Your task to perform on an android device: toggle show notifications on the lock screen Image 0: 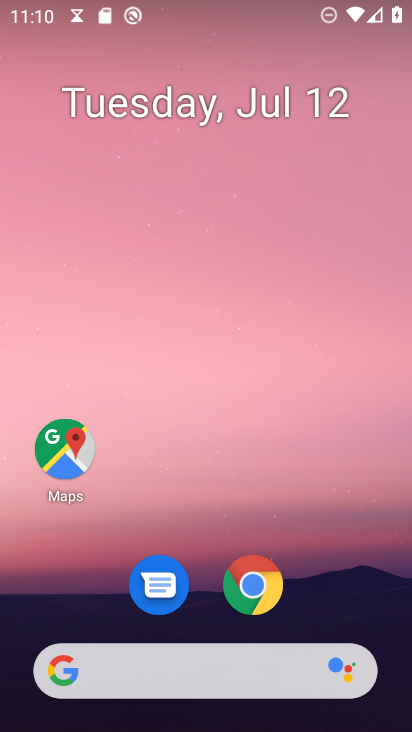
Step 0: drag from (206, 678) to (322, 224)
Your task to perform on an android device: toggle show notifications on the lock screen Image 1: 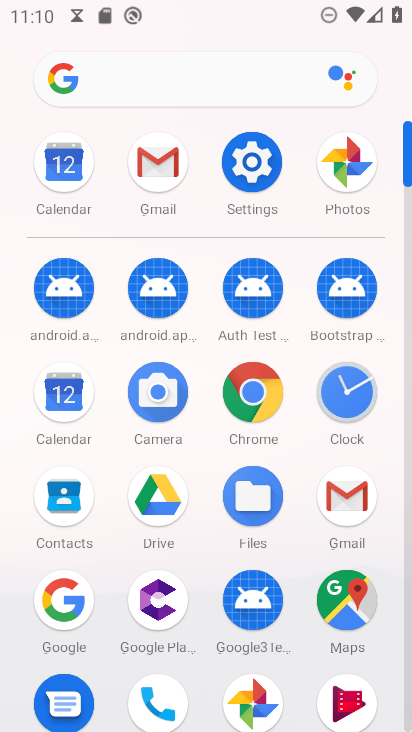
Step 1: click (255, 173)
Your task to perform on an android device: toggle show notifications on the lock screen Image 2: 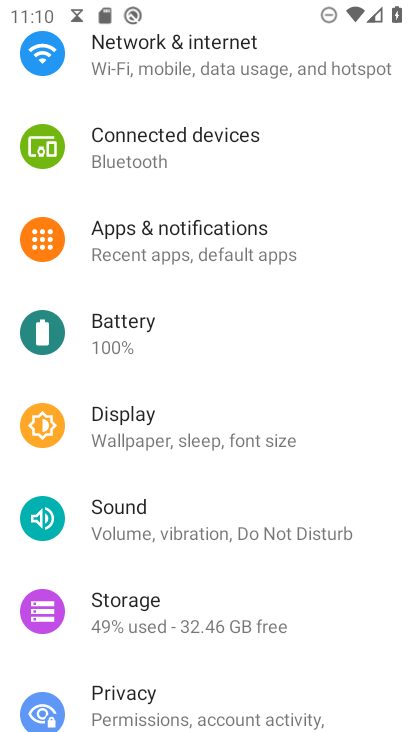
Step 2: click (187, 239)
Your task to perform on an android device: toggle show notifications on the lock screen Image 3: 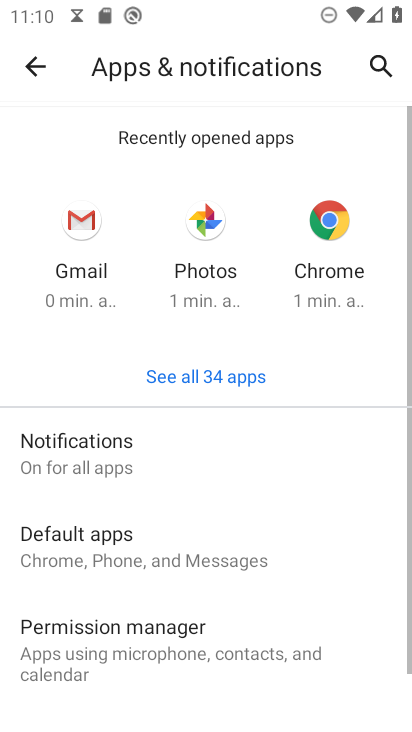
Step 3: click (118, 453)
Your task to perform on an android device: toggle show notifications on the lock screen Image 4: 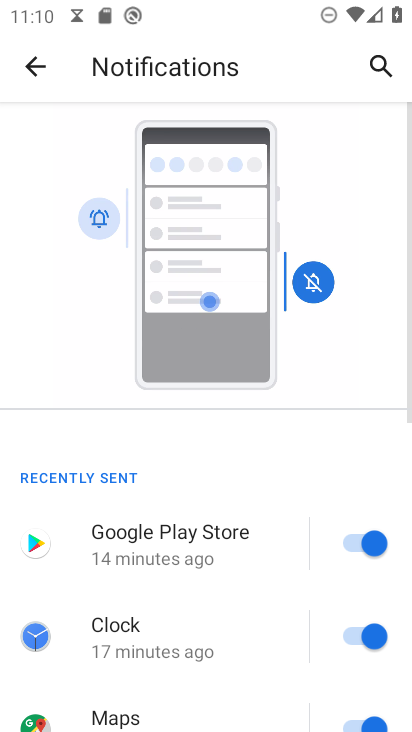
Step 4: drag from (202, 601) to (325, 186)
Your task to perform on an android device: toggle show notifications on the lock screen Image 5: 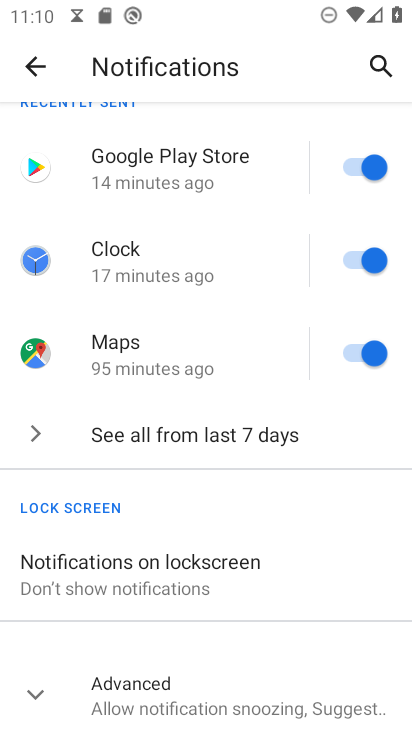
Step 5: click (155, 555)
Your task to perform on an android device: toggle show notifications on the lock screen Image 6: 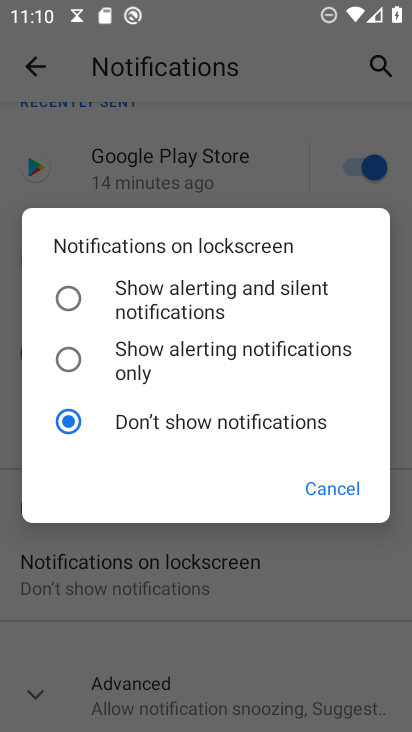
Step 6: click (69, 297)
Your task to perform on an android device: toggle show notifications on the lock screen Image 7: 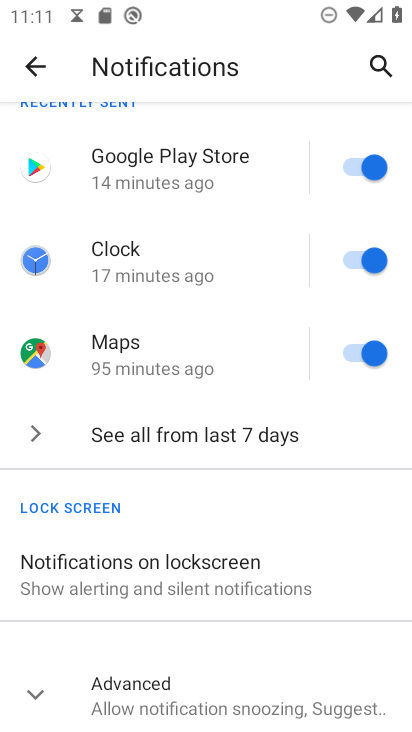
Step 7: task complete